Your task to perform on an android device: star an email in the gmail app Image 0: 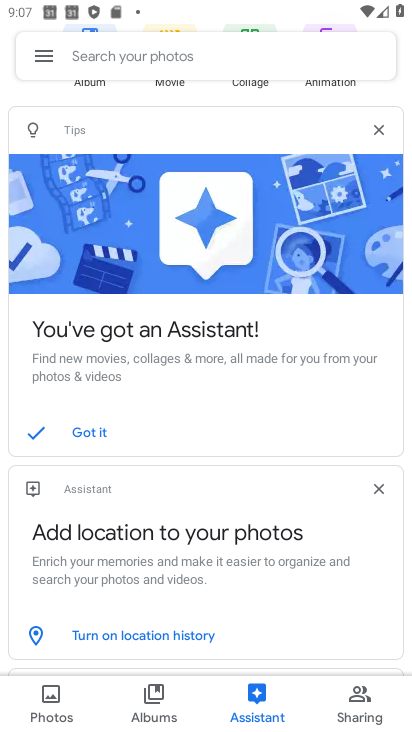
Step 0: press back button
Your task to perform on an android device: star an email in the gmail app Image 1: 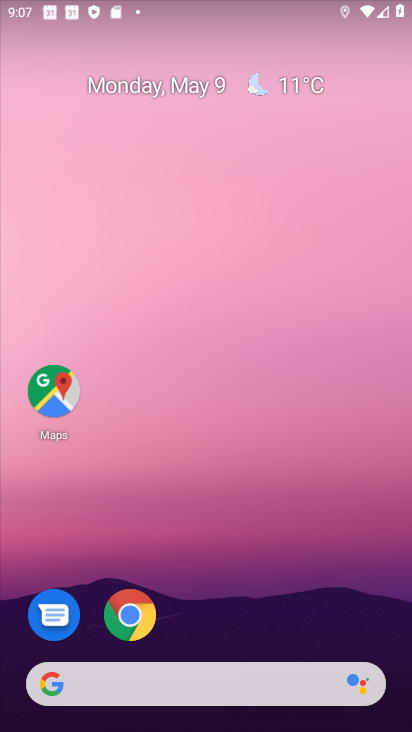
Step 1: drag from (235, 577) to (200, 4)
Your task to perform on an android device: star an email in the gmail app Image 2: 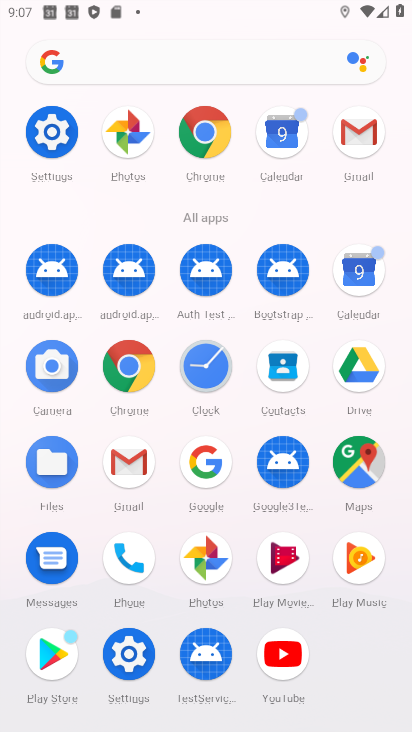
Step 2: click (125, 456)
Your task to perform on an android device: star an email in the gmail app Image 3: 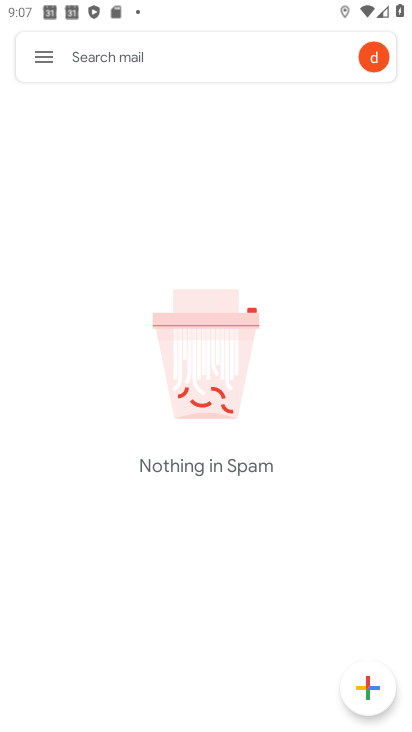
Step 3: click (54, 63)
Your task to perform on an android device: star an email in the gmail app Image 4: 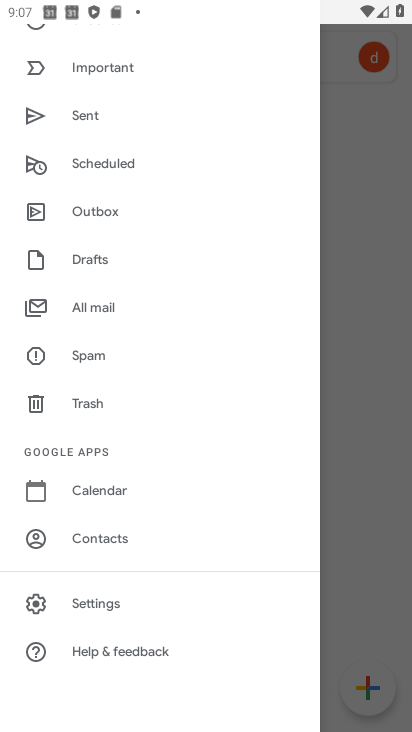
Step 4: drag from (143, 150) to (171, 541)
Your task to perform on an android device: star an email in the gmail app Image 5: 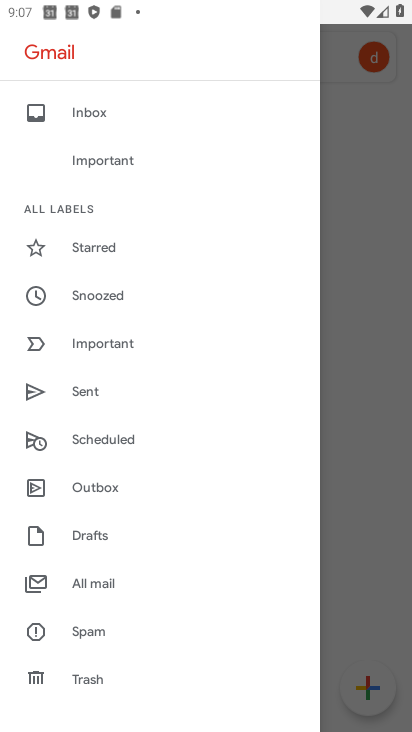
Step 5: click (121, 95)
Your task to perform on an android device: star an email in the gmail app Image 6: 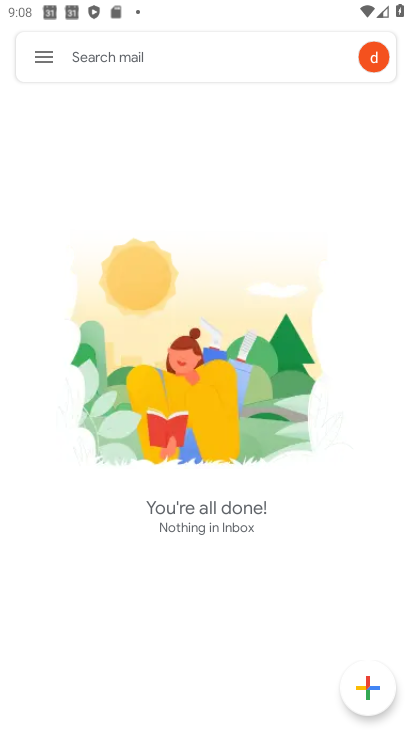
Step 6: task complete